Your task to perform on an android device: turn on sleep mode Image 0: 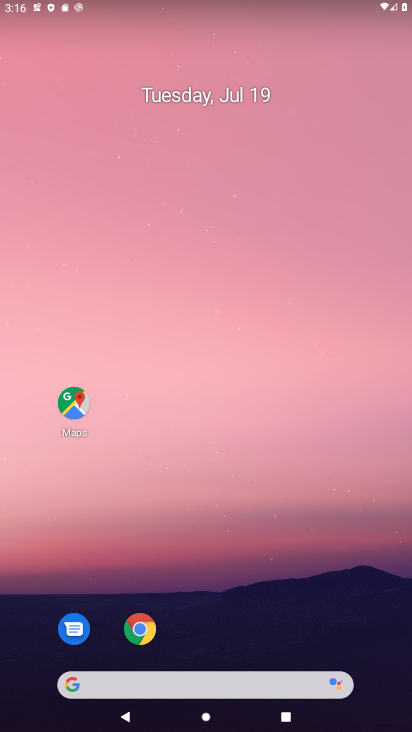
Step 0: drag from (184, 676) to (109, 79)
Your task to perform on an android device: turn on sleep mode Image 1: 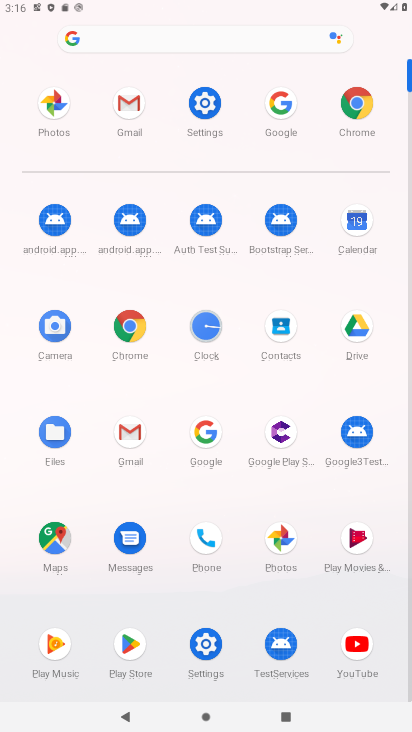
Step 1: click (206, 122)
Your task to perform on an android device: turn on sleep mode Image 2: 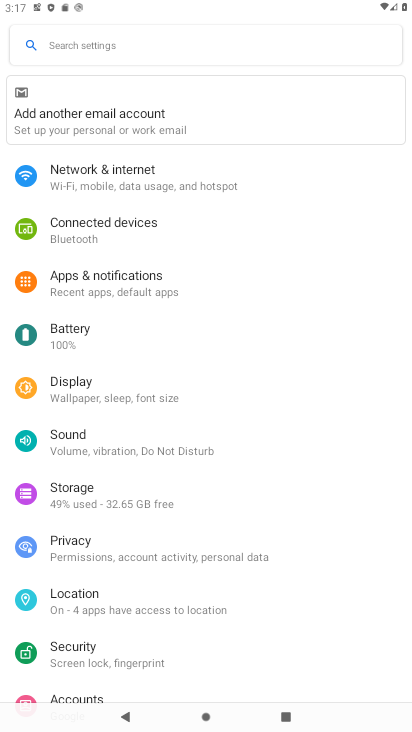
Step 2: click (94, 394)
Your task to perform on an android device: turn on sleep mode Image 3: 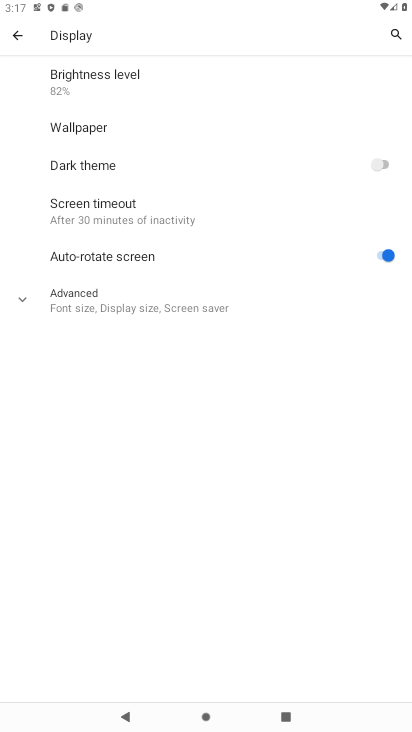
Step 3: click (100, 308)
Your task to perform on an android device: turn on sleep mode Image 4: 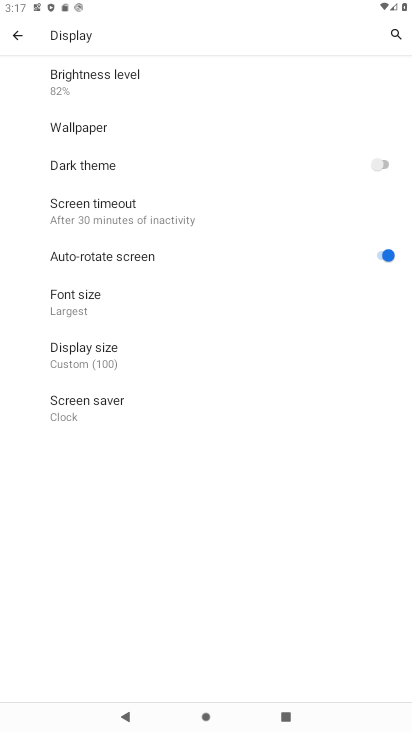
Step 4: task complete